Your task to perform on an android device: turn on showing notifications on the lock screen Image 0: 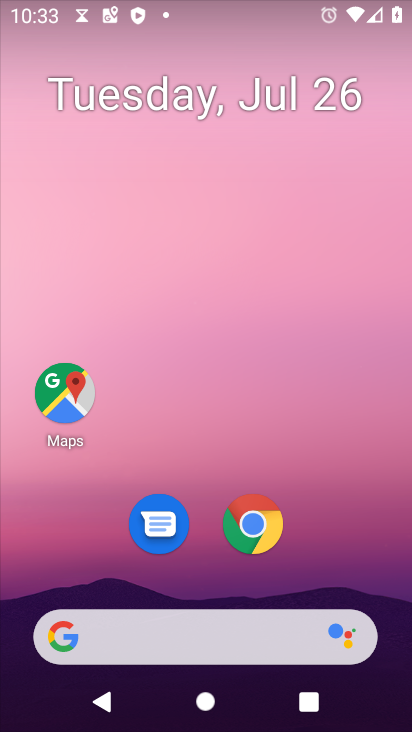
Step 0: press home button
Your task to perform on an android device: turn on showing notifications on the lock screen Image 1: 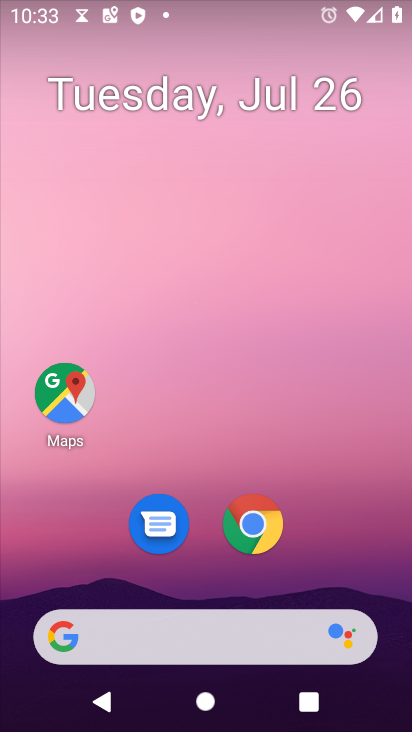
Step 1: drag from (186, 646) to (253, 170)
Your task to perform on an android device: turn on showing notifications on the lock screen Image 2: 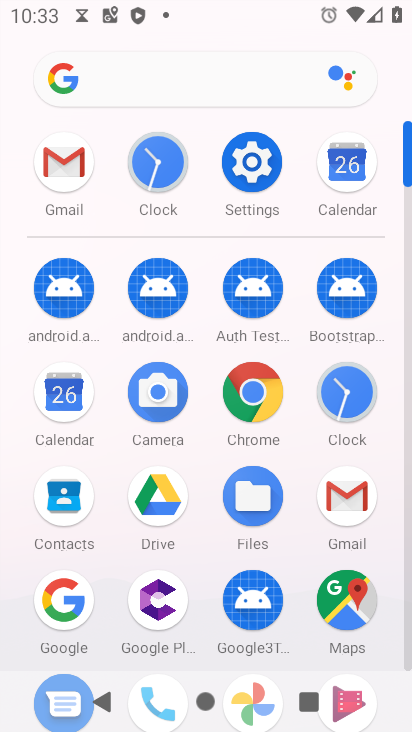
Step 2: click (247, 169)
Your task to perform on an android device: turn on showing notifications on the lock screen Image 3: 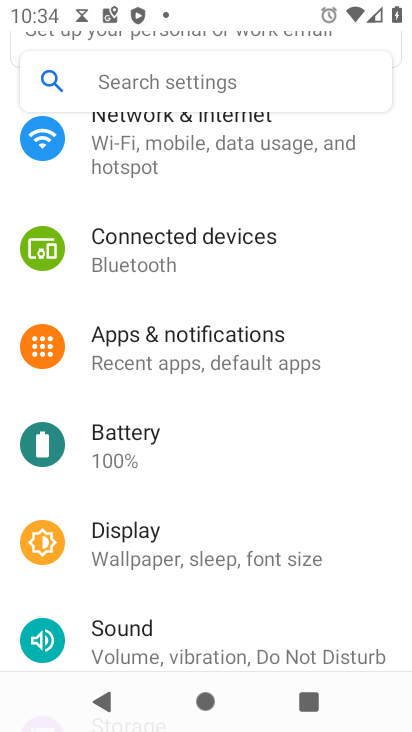
Step 3: drag from (314, 262) to (303, 383)
Your task to perform on an android device: turn on showing notifications on the lock screen Image 4: 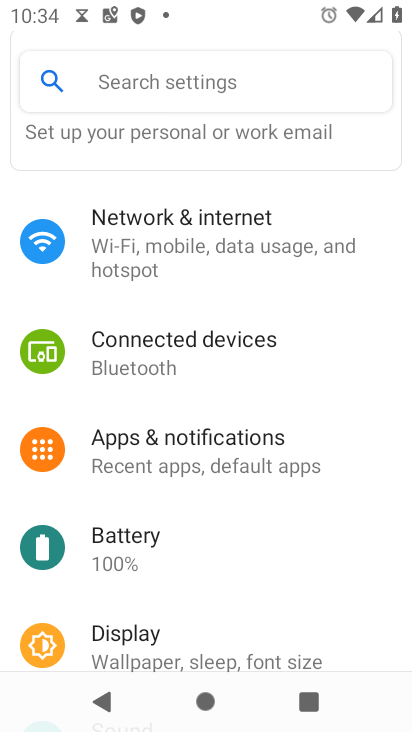
Step 4: click (208, 442)
Your task to perform on an android device: turn on showing notifications on the lock screen Image 5: 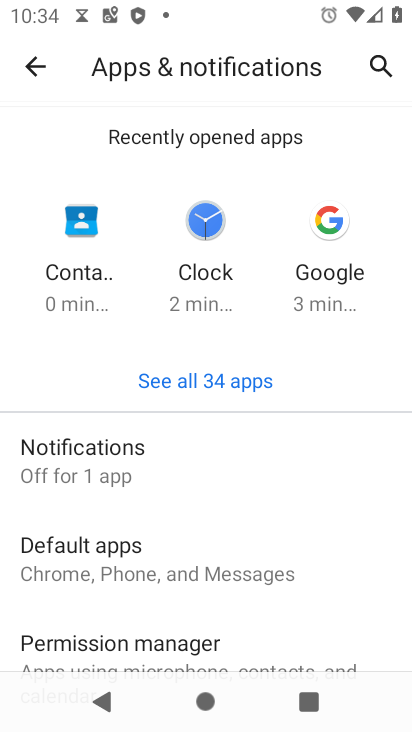
Step 5: click (96, 461)
Your task to perform on an android device: turn on showing notifications on the lock screen Image 6: 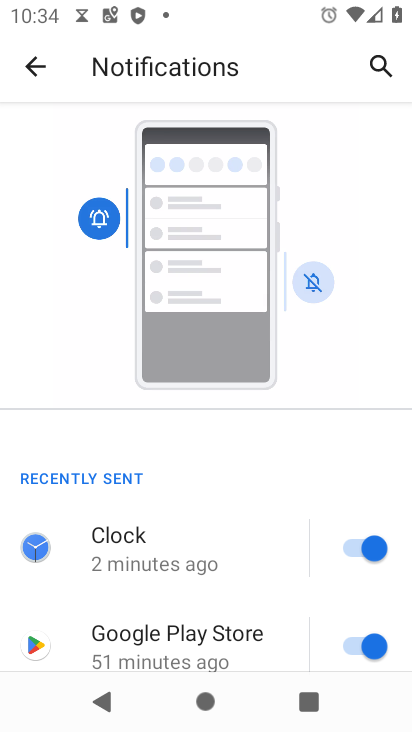
Step 6: drag from (208, 635) to (389, 88)
Your task to perform on an android device: turn on showing notifications on the lock screen Image 7: 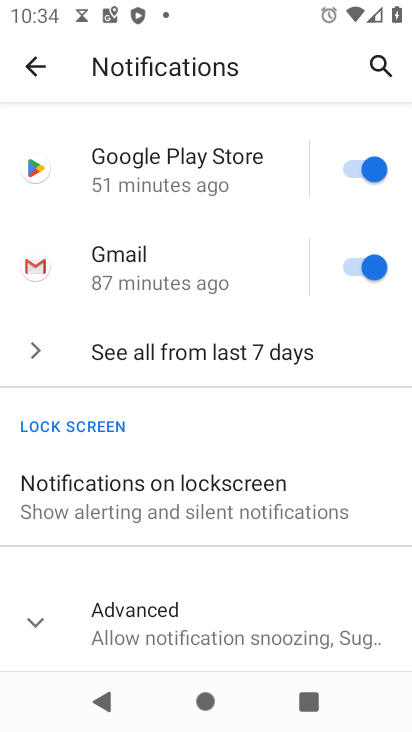
Step 7: click (208, 483)
Your task to perform on an android device: turn on showing notifications on the lock screen Image 8: 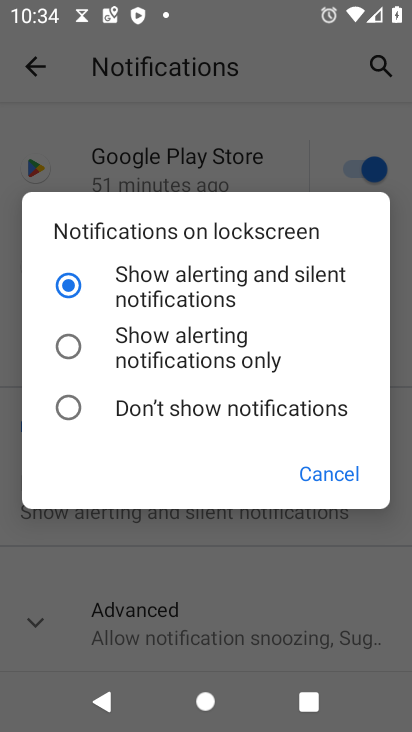
Step 8: task complete